Your task to perform on an android device: change the upload size in google photos Image 0: 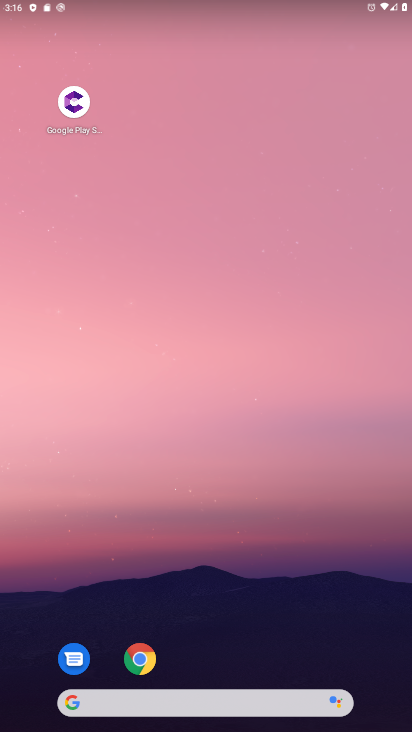
Step 0: drag from (272, 661) to (244, 81)
Your task to perform on an android device: change the upload size in google photos Image 1: 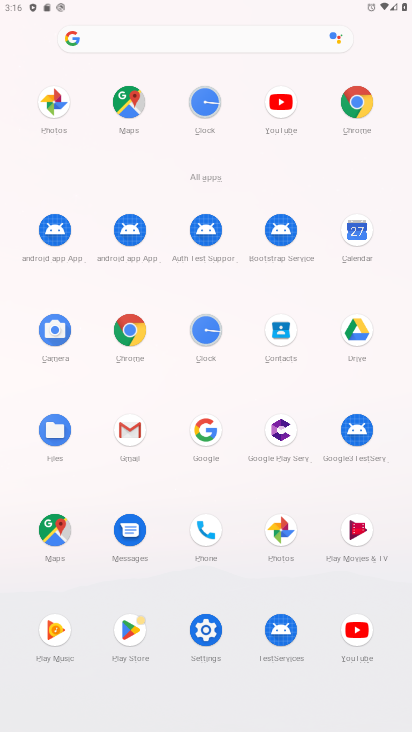
Step 1: click (57, 99)
Your task to perform on an android device: change the upload size in google photos Image 2: 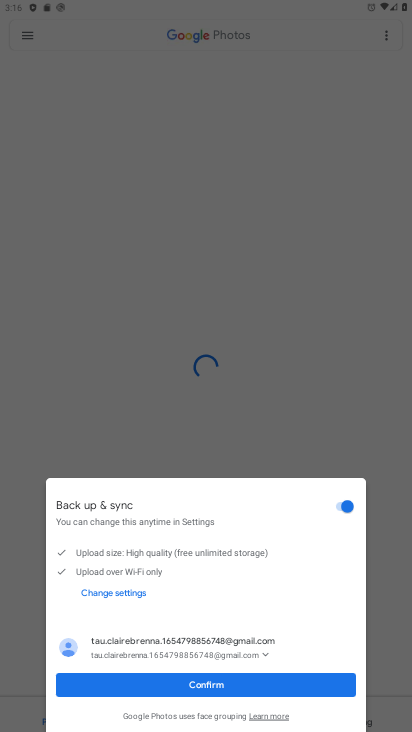
Step 2: click (175, 678)
Your task to perform on an android device: change the upload size in google photos Image 3: 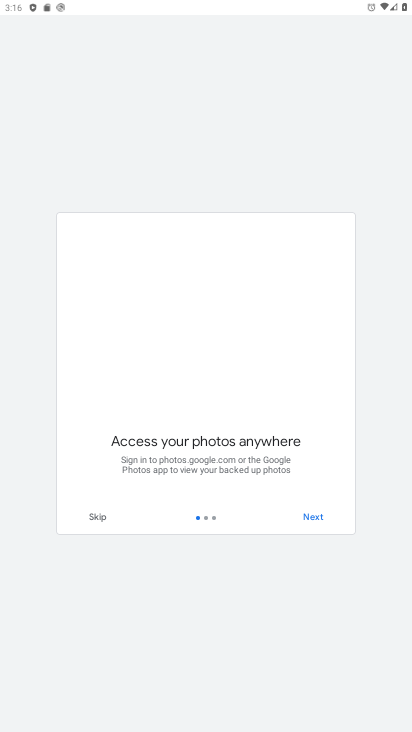
Step 3: click (99, 521)
Your task to perform on an android device: change the upload size in google photos Image 4: 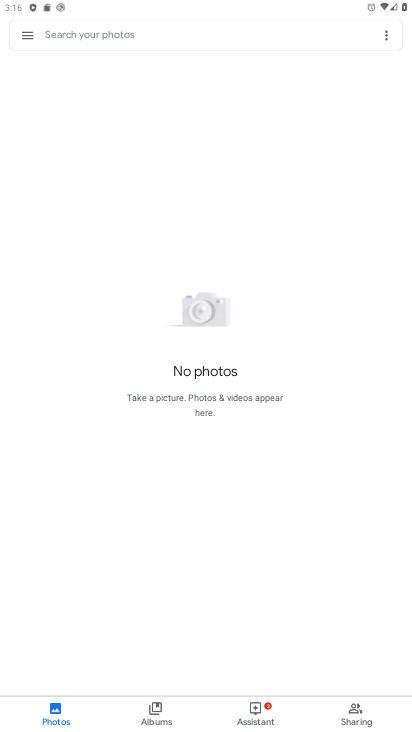
Step 4: click (24, 33)
Your task to perform on an android device: change the upload size in google photos Image 5: 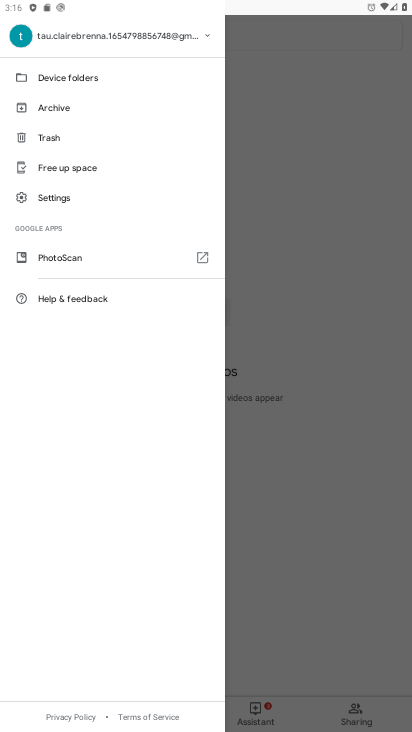
Step 5: click (58, 202)
Your task to perform on an android device: change the upload size in google photos Image 6: 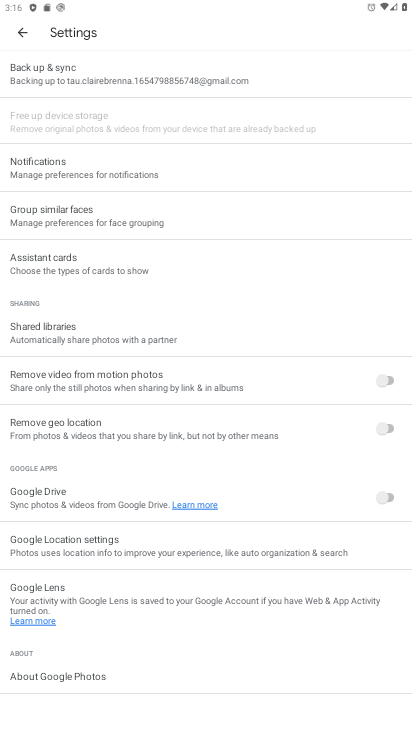
Step 6: click (197, 71)
Your task to perform on an android device: change the upload size in google photos Image 7: 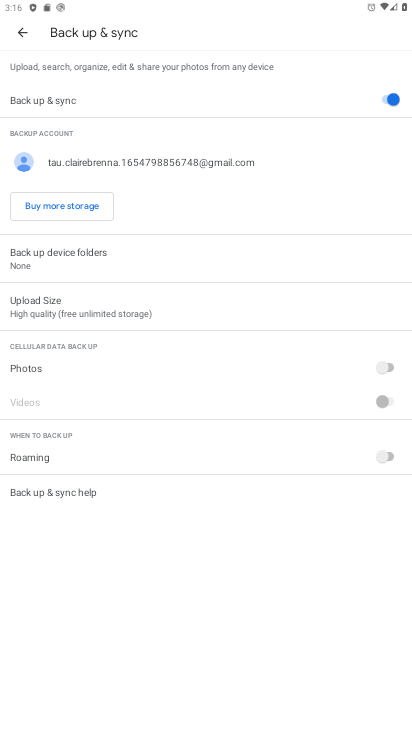
Step 7: click (114, 308)
Your task to perform on an android device: change the upload size in google photos Image 8: 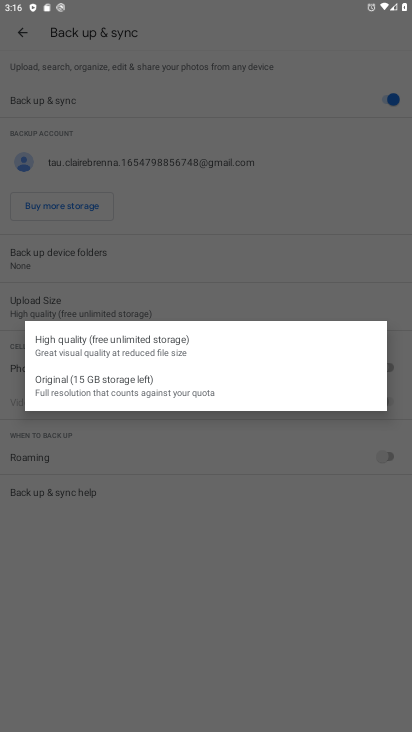
Step 8: click (132, 384)
Your task to perform on an android device: change the upload size in google photos Image 9: 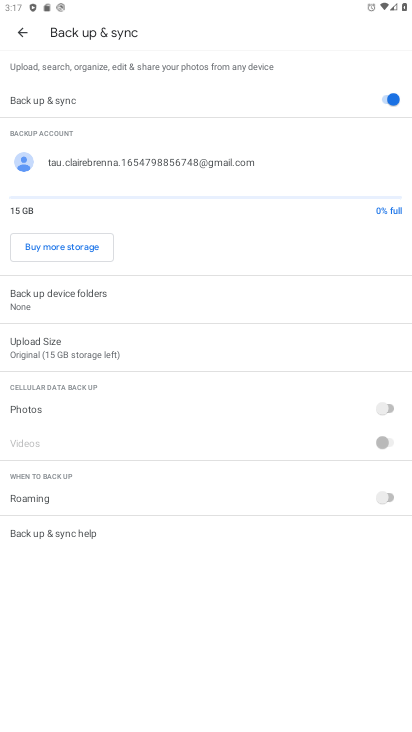
Step 9: task complete